Your task to perform on an android device: What's the weather going to be tomorrow? Image 0: 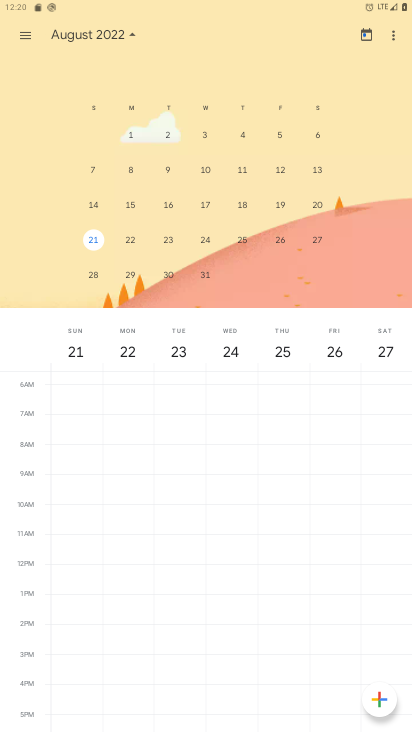
Step 0: press home button
Your task to perform on an android device: What's the weather going to be tomorrow? Image 1: 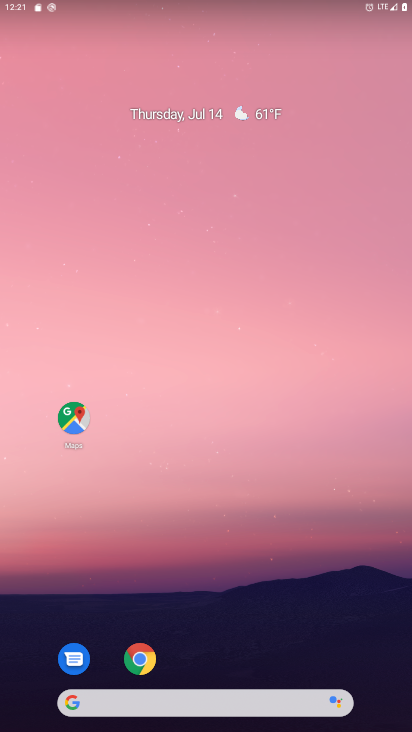
Step 1: click (185, 698)
Your task to perform on an android device: What's the weather going to be tomorrow? Image 2: 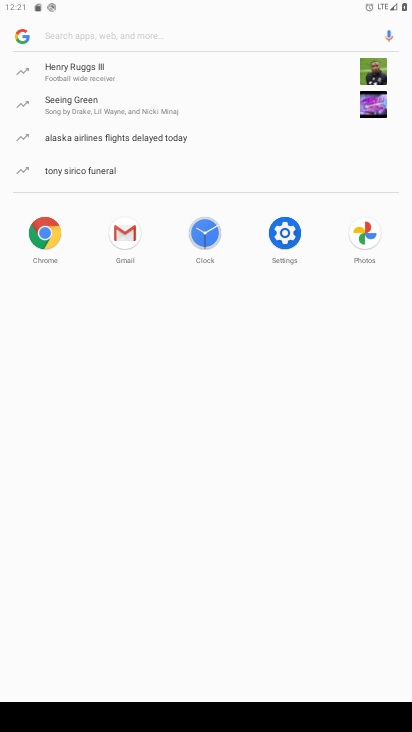
Step 2: type "weather"
Your task to perform on an android device: What's the weather going to be tomorrow? Image 3: 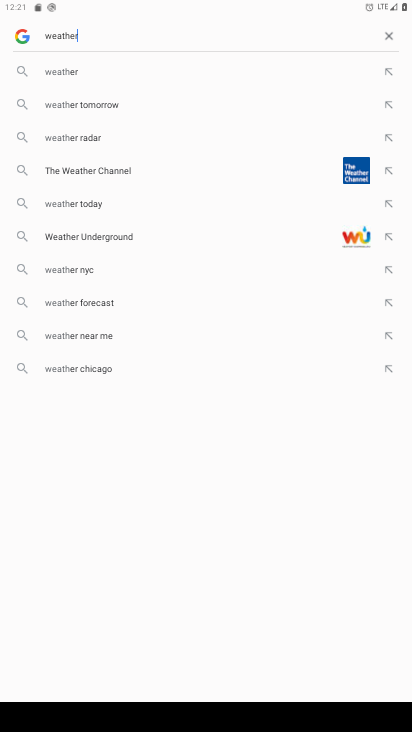
Step 3: type ""
Your task to perform on an android device: What's the weather going to be tomorrow? Image 4: 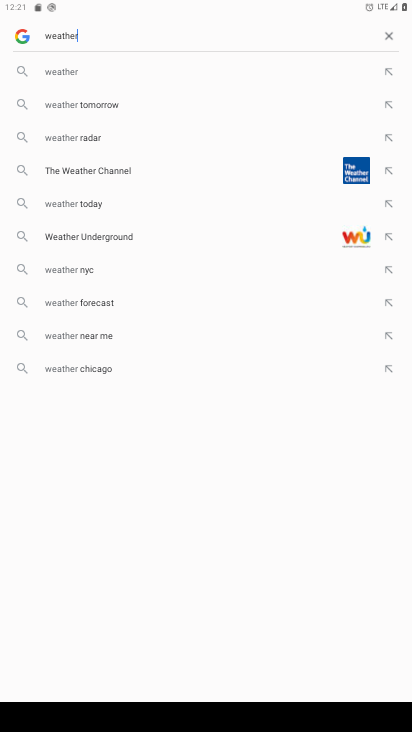
Step 4: click (88, 68)
Your task to perform on an android device: What's the weather going to be tomorrow? Image 5: 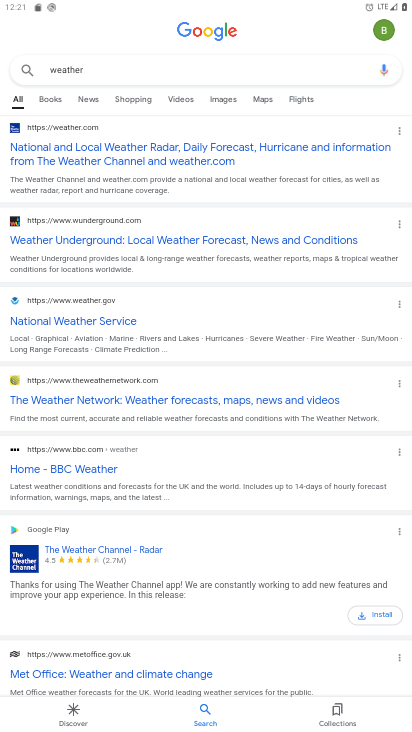
Step 5: click (96, 315)
Your task to perform on an android device: What's the weather going to be tomorrow? Image 6: 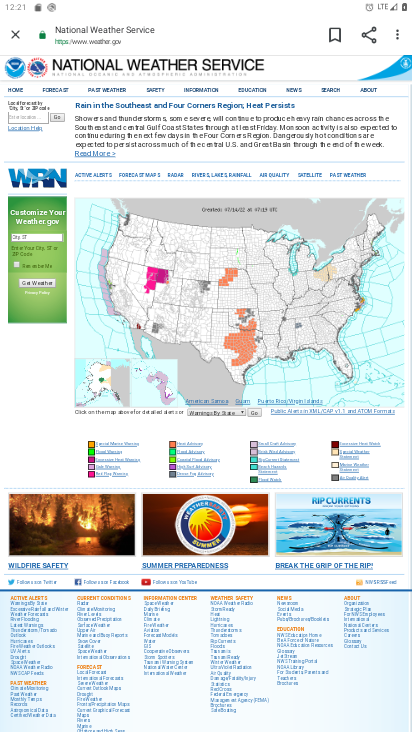
Step 6: task complete